Your task to perform on an android device: What is the recent news? Image 0: 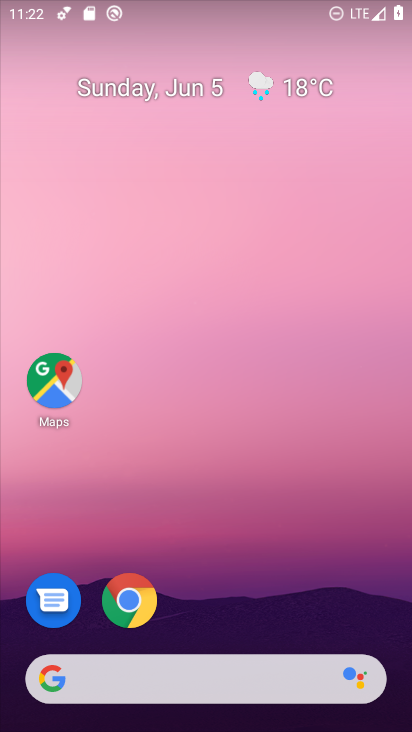
Step 0: drag from (225, 570) to (216, 269)
Your task to perform on an android device: What is the recent news? Image 1: 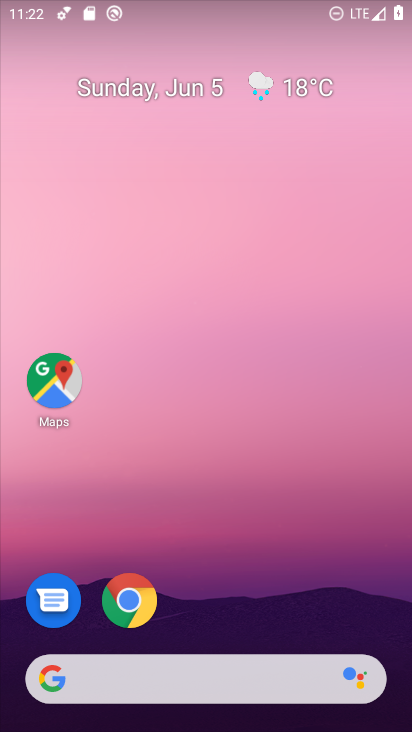
Step 1: drag from (208, 634) to (229, 194)
Your task to perform on an android device: What is the recent news? Image 2: 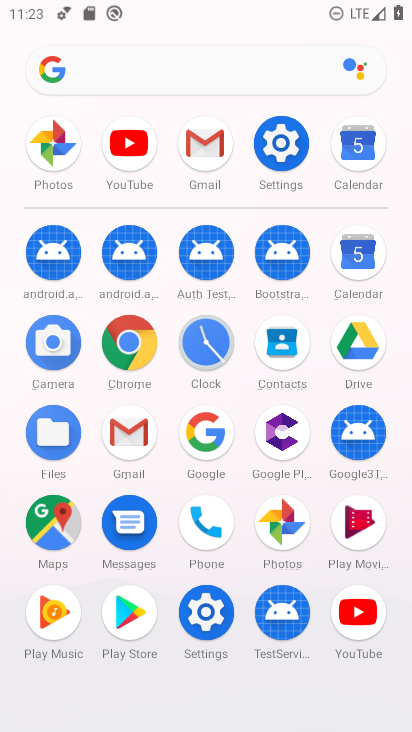
Step 2: click (196, 425)
Your task to perform on an android device: What is the recent news? Image 3: 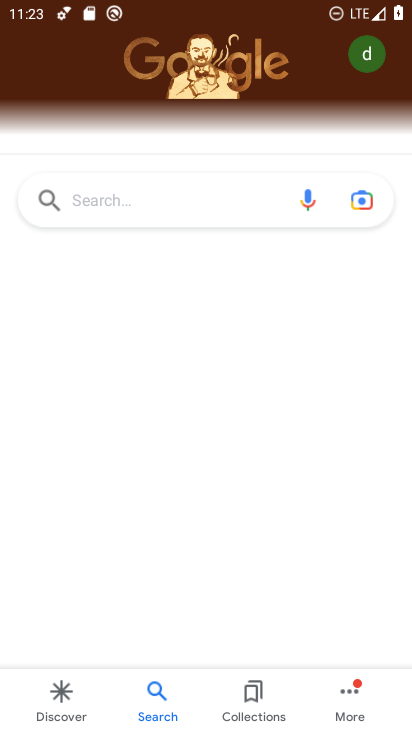
Step 3: click (163, 205)
Your task to perform on an android device: What is the recent news? Image 4: 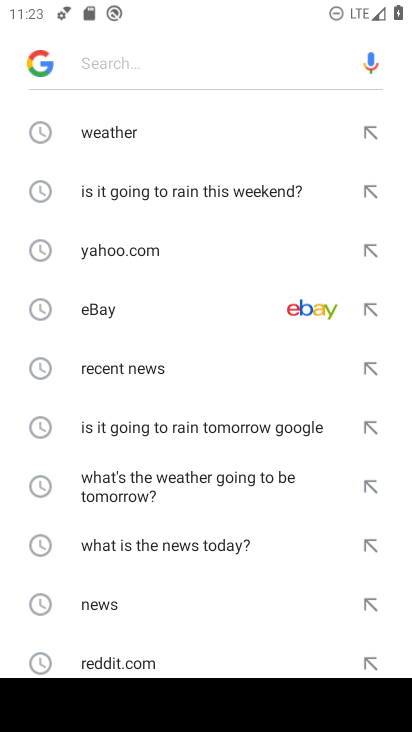
Step 4: click (137, 62)
Your task to perform on an android device: What is the recent news? Image 5: 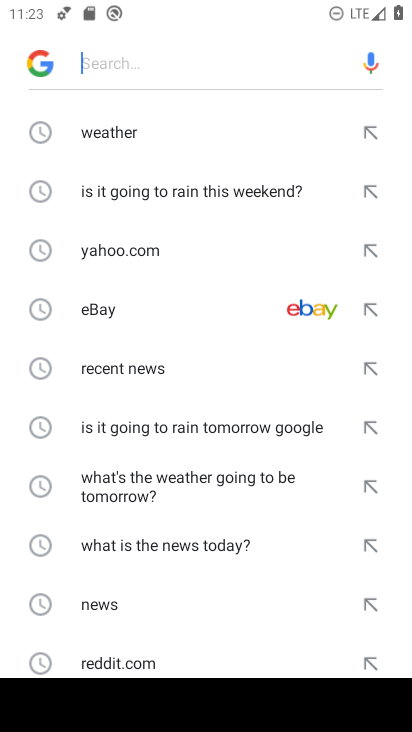
Step 5: click (111, 599)
Your task to perform on an android device: What is the recent news? Image 6: 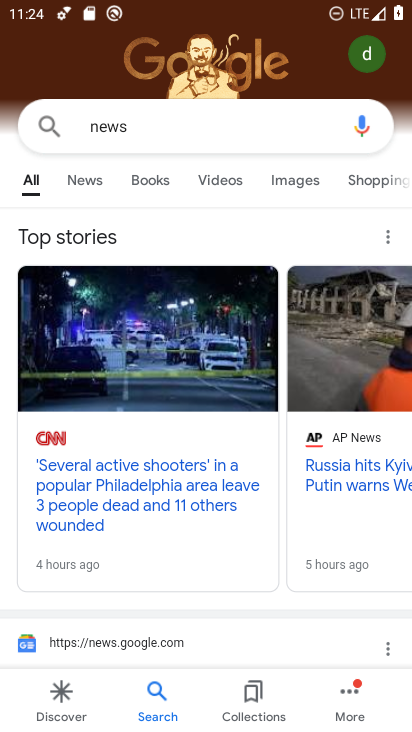
Step 6: click (87, 182)
Your task to perform on an android device: What is the recent news? Image 7: 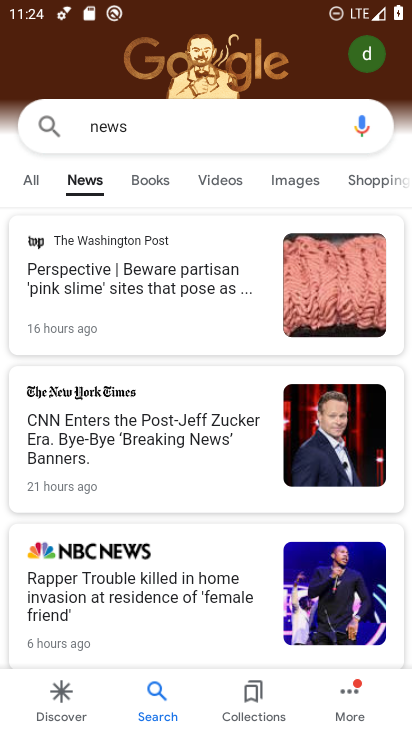
Step 7: task complete